Your task to perform on an android device: Open my contact list Image 0: 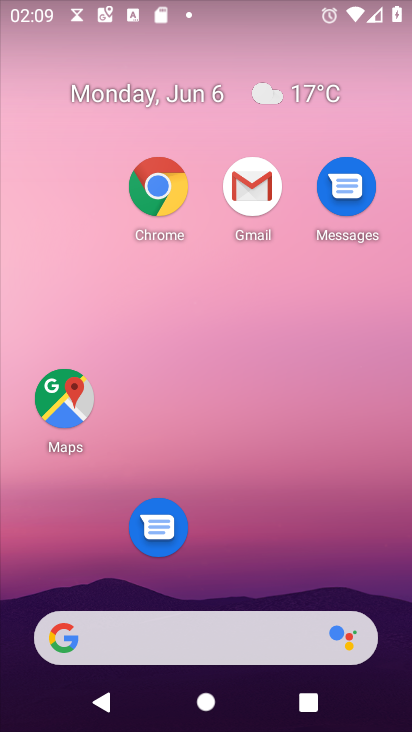
Step 0: drag from (262, 520) to (139, 130)
Your task to perform on an android device: Open my contact list Image 1: 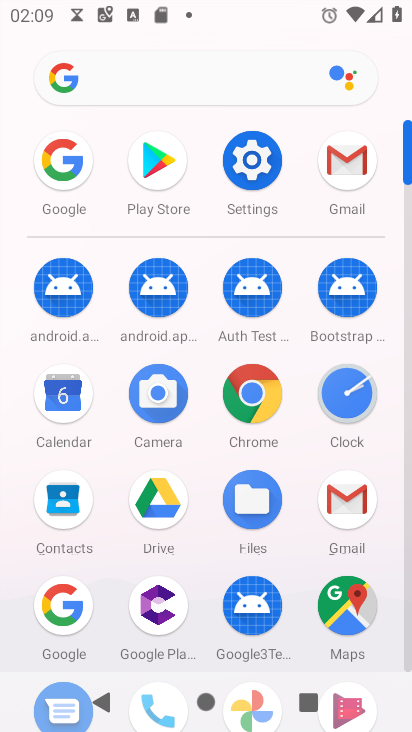
Step 1: drag from (216, 573) to (146, 263)
Your task to perform on an android device: Open my contact list Image 2: 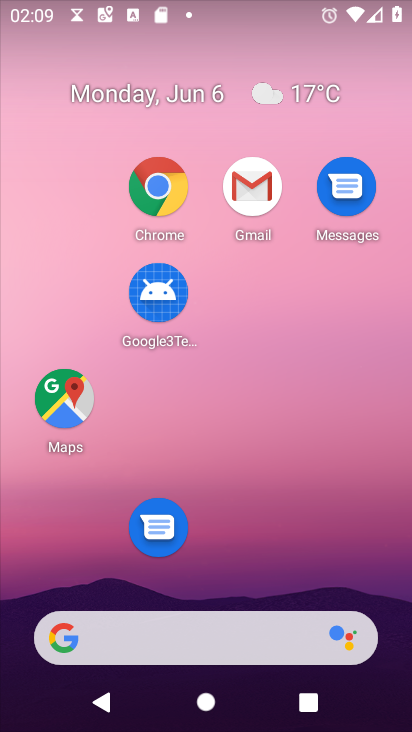
Step 2: drag from (251, 512) to (138, 160)
Your task to perform on an android device: Open my contact list Image 3: 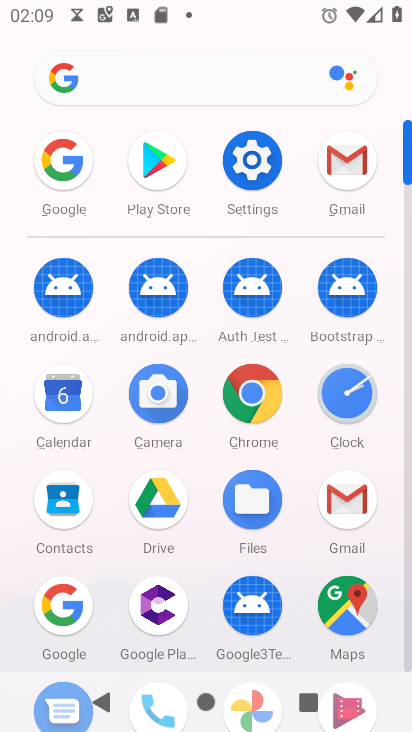
Step 3: click (59, 521)
Your task to perform on an android device: Open my contact list Image 4: 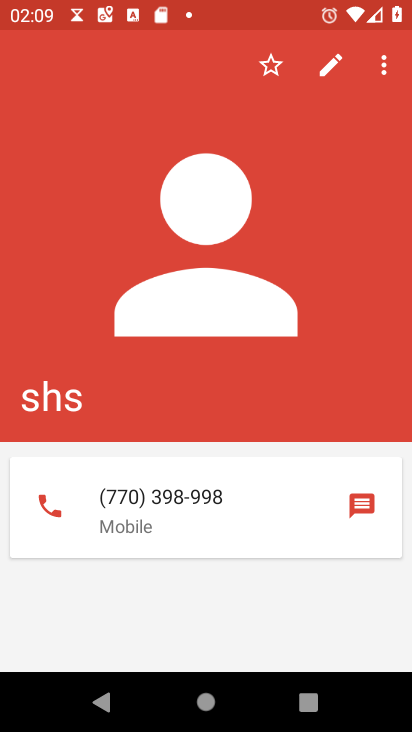
Step 4: task complete